Your task to perform on an android device: toggle location history Image 0: 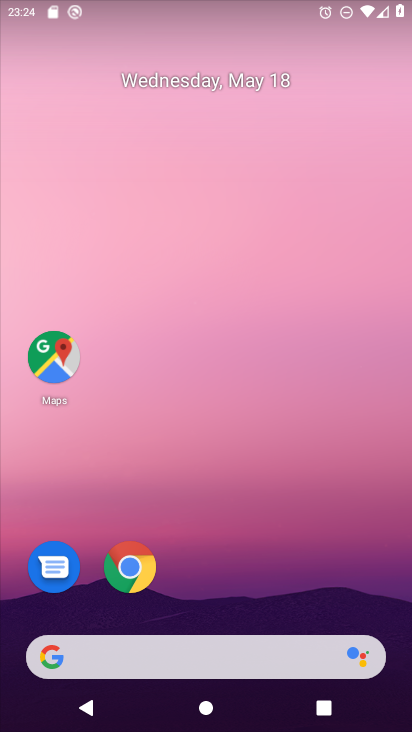
Step 0: drag from (235, 663) to (265, 218)
Your task to perform on an android device: toggle location history Image 1: 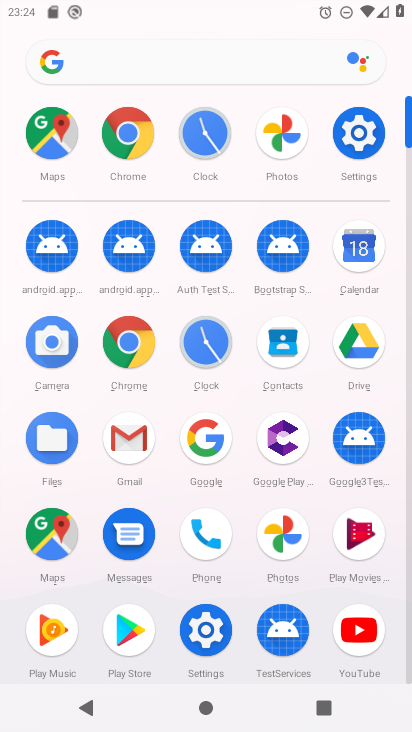
Step 1: click (208, 622)
Your task to perform on an android device: toggle location history Image 2: 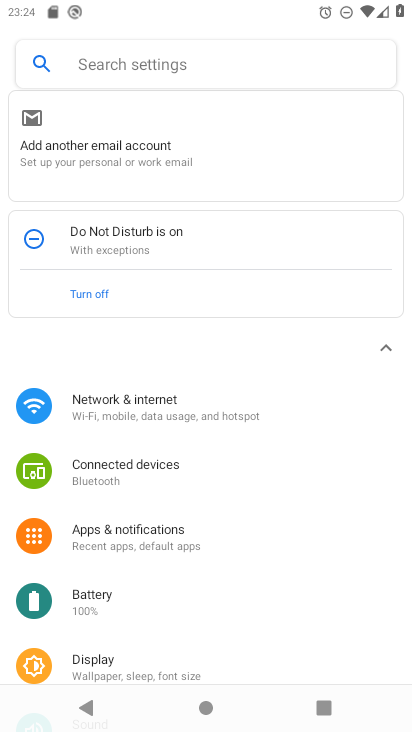
Step 2: click (146, 75)
Your task to perform on an android device: toggle location history Image 3: 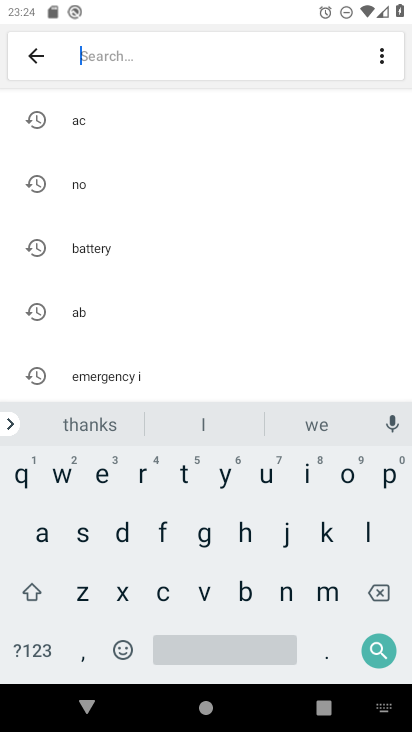
Step 3: drag from (118, 306) to (130, 197)
Your task to perform on an android device: toggle location history Image 4: 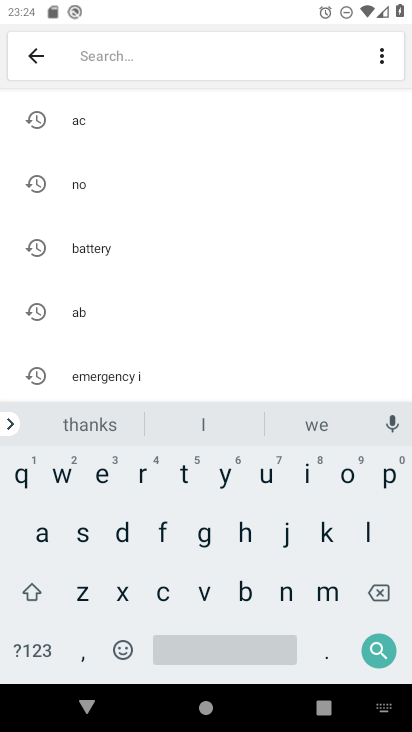
Step 4: click (358, 526)
Your task to perform on an android device: toggle location history Image 5: 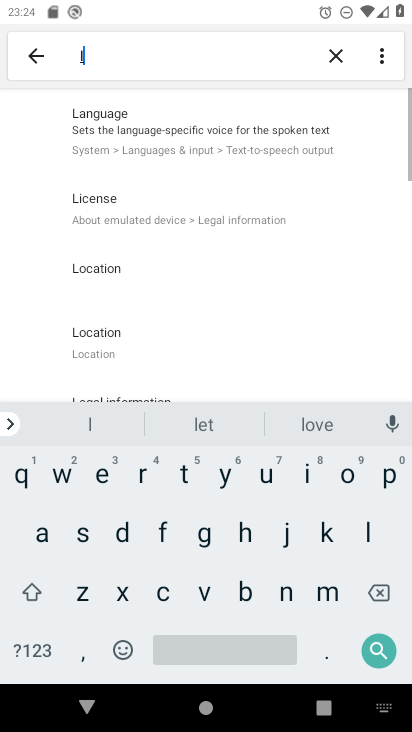
Step 5: click (355, 473)
Your task to perform on an android device: toggle location history Image 6: 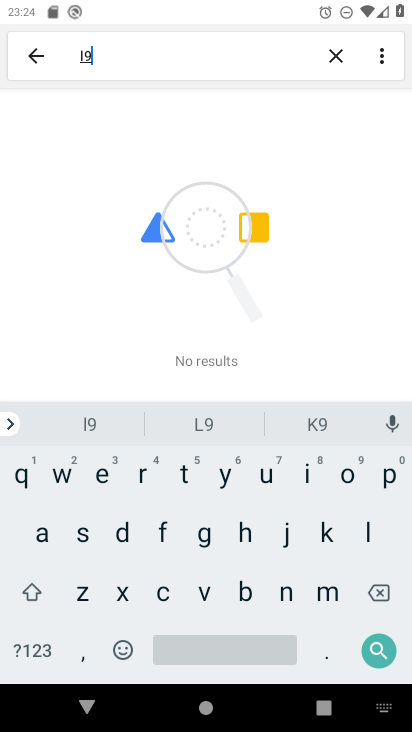
Step 6: click (379, 598)
Your task to perform on an android device: toggle location history Image 7: 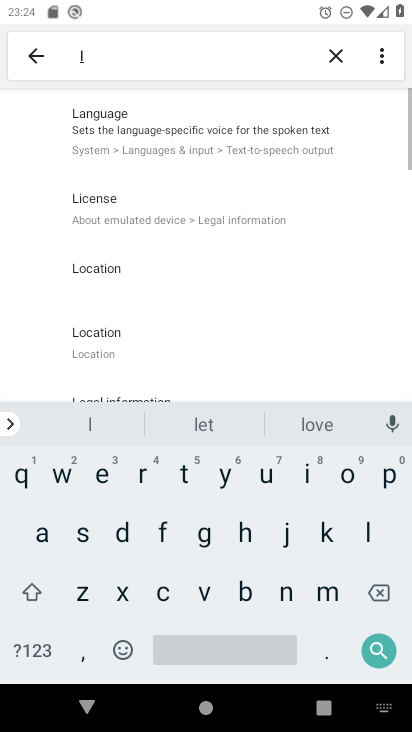
Step 7: click (341, 475)
Your task to perform on an android device: toggle location history Image 8: 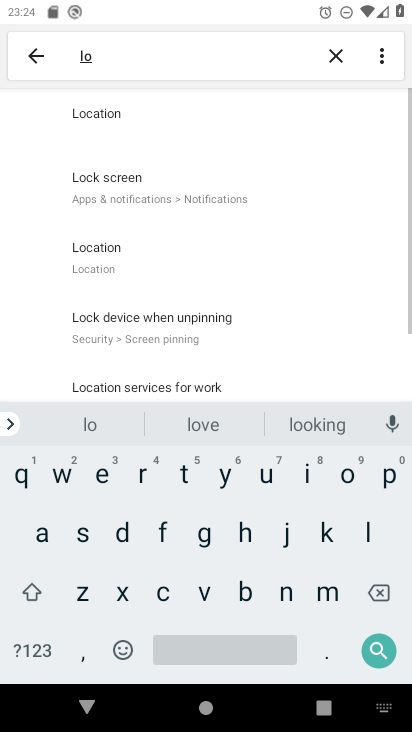
Step 8: click (111, 253)
Your task to perform on an android device: toggle location history Image 9: 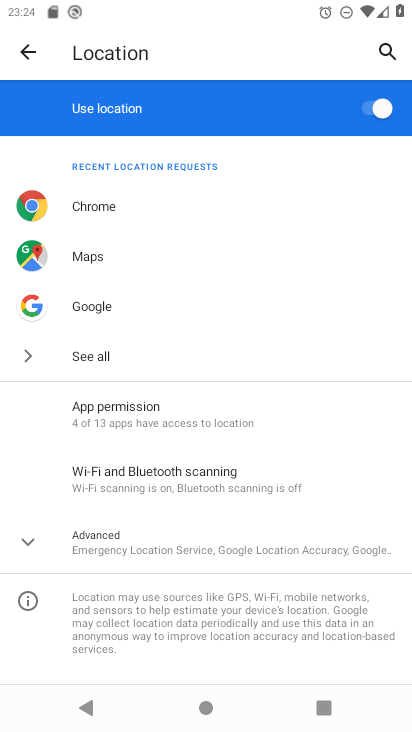
Step 9: click (76, 548)
Your task to perform on an android device: toggle location history Image 10: 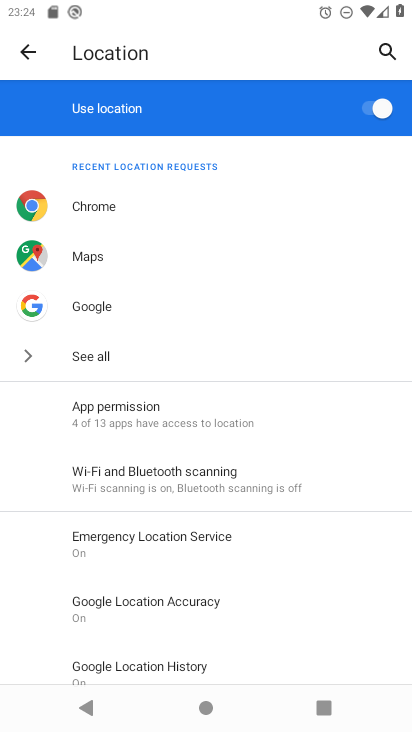
Step 10: click (137, 667)
Your task to perform on an android device: toggle location history Image 11: 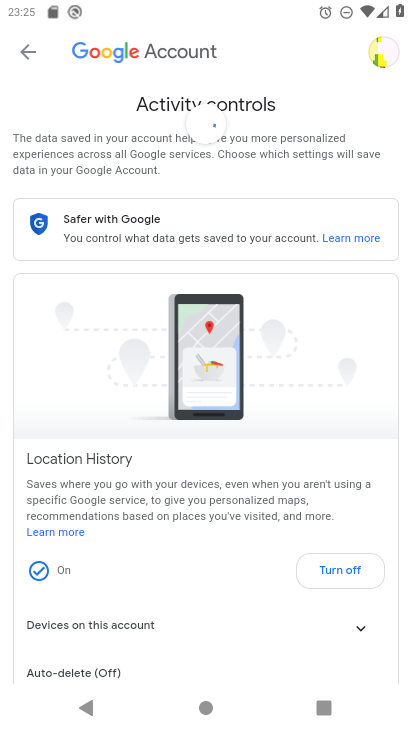
Step 11: task complete